Your task to perform on an android device: check storage Image 0: 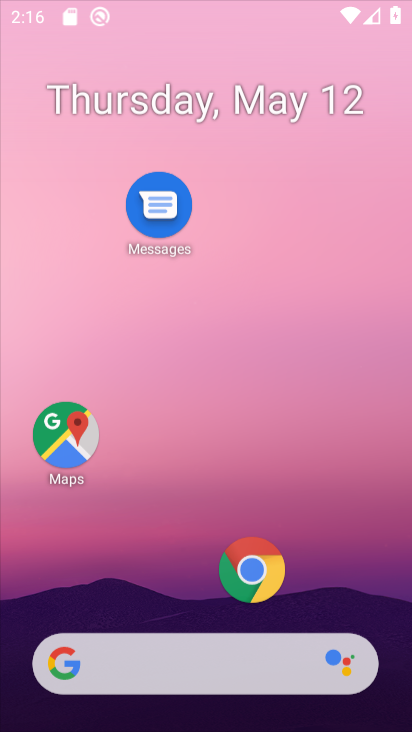
Step 0: click (214, 153)
Your task to perform on an android device: check storage Image 1: 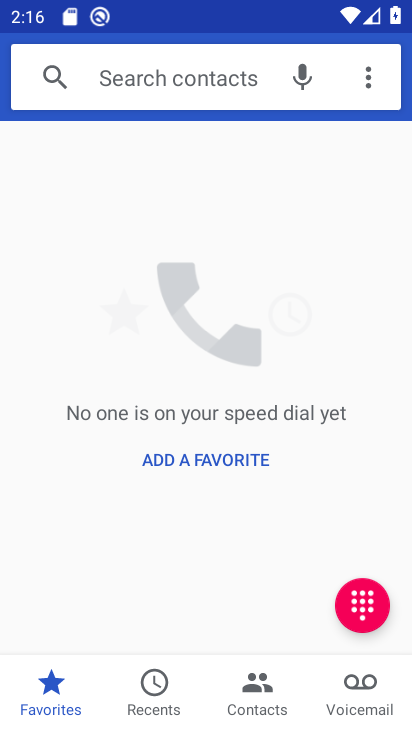
Step 1: drag from (211, 589) to (241, 133)
Your task to perform on an android device: check storage Image 2: 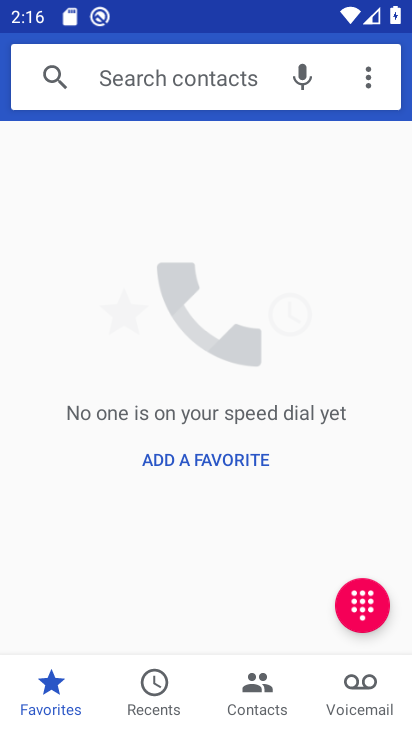
Step 2: press home button
Your task to perform on an android device: check storage Image 3: 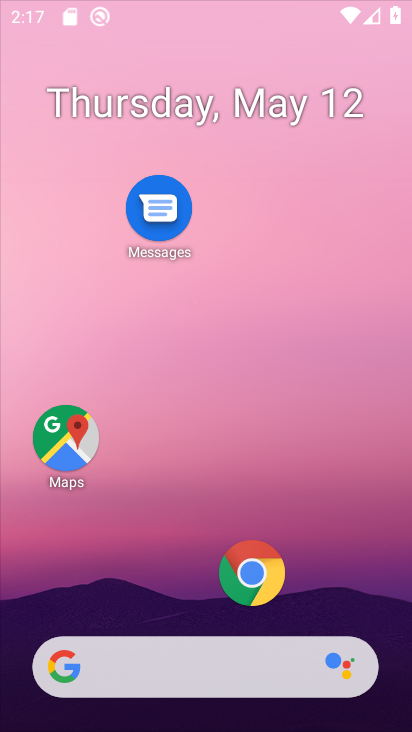
Step 3: drag from (195, 595) to (266, 153)
Your task to perform on an android device: check storage Image 4: 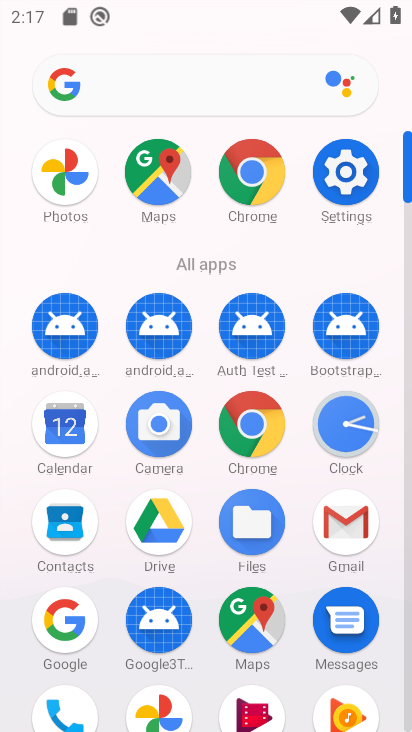
Step 4: click (348, 172)
Your task to perform on an android device: check storage Image 5: 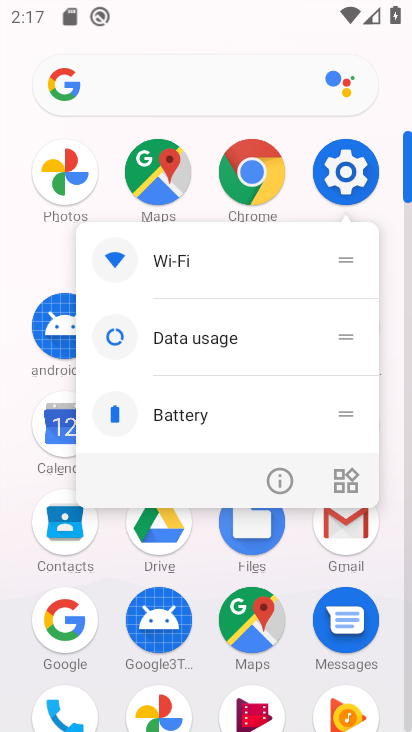
Step 5: click (271, 473)
Your task to perform on an android device: check storage Image 6: 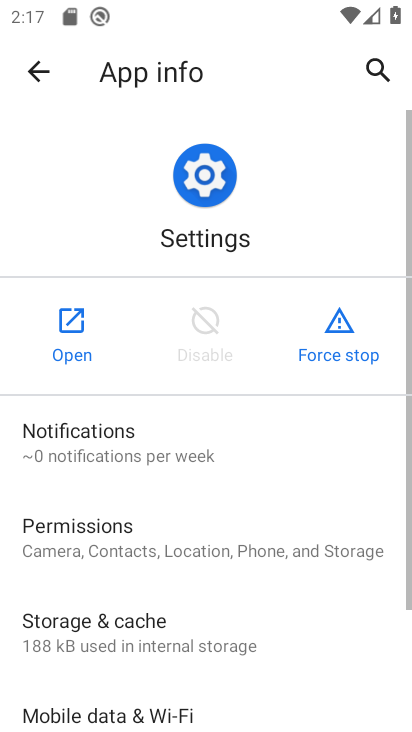
Step 6: click (73, 336)
Your task to perform on an android device: check storage Image 7: 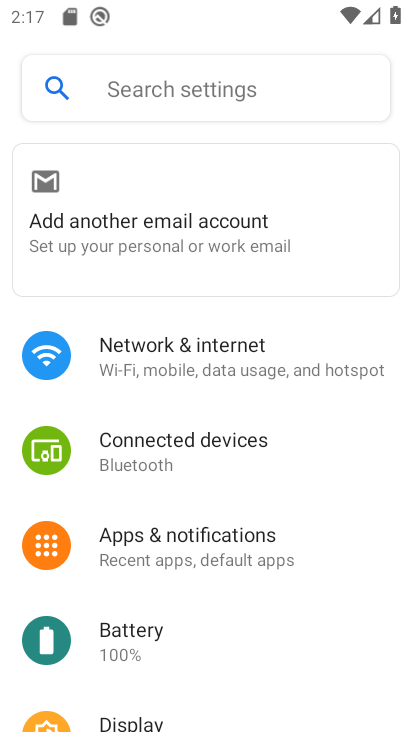
Step 7: drag from (213, 624) to (286, 104)
Your task to perform on an android device: check storage Image 8: 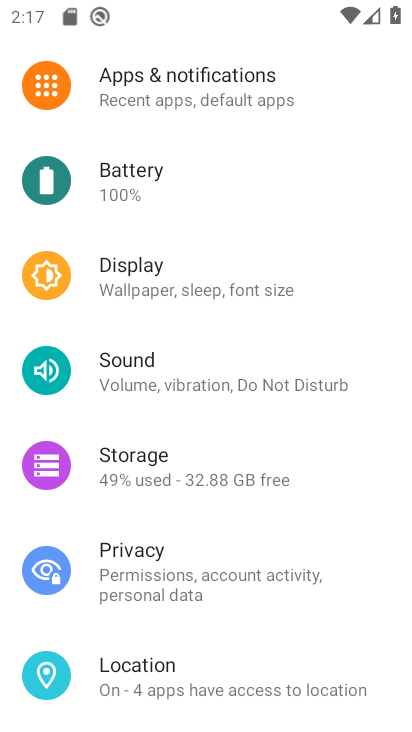
Step 8: click (163, 473)
Your task to perform on an android device: check storage Image 9: 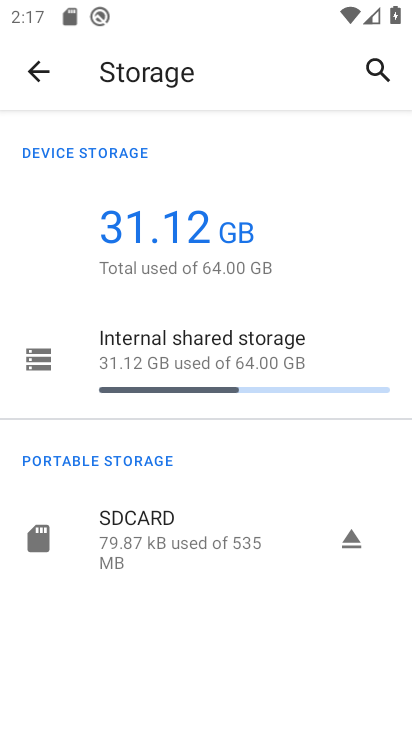
Step 9: task complete